Your task to perform on an android device: see sites visited before in the chrome app Image 0: 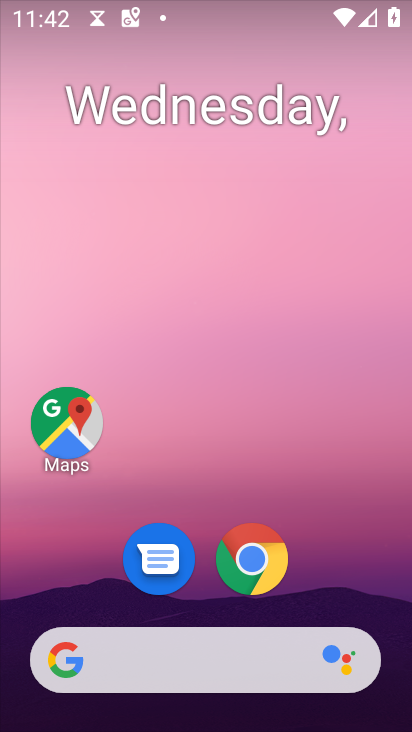
Step 0: click (267, 572)
Your task to perform on an android device: see sites visited before in the chrome app Image 1: 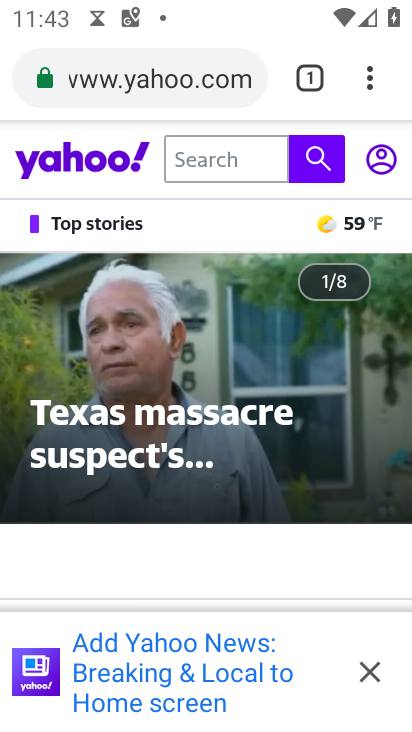
Step 1: click (374, 93)
Your task to perform on an android device: see sites visited before in the chrome app Image 2: 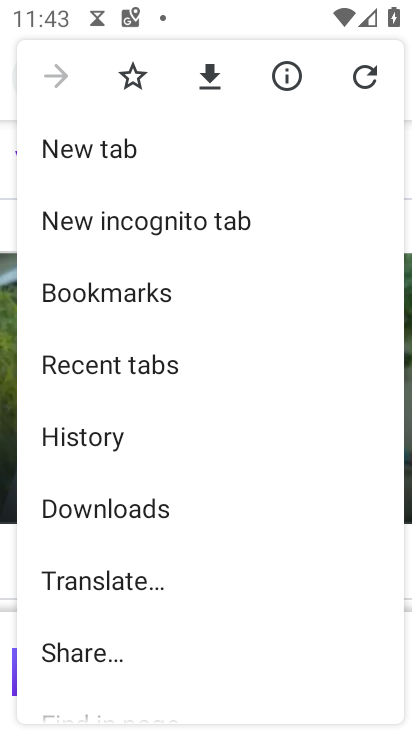
Step 2: click (191, 429)
Your task to perform on an android device: see sites visited before in the chrome app Image 3: 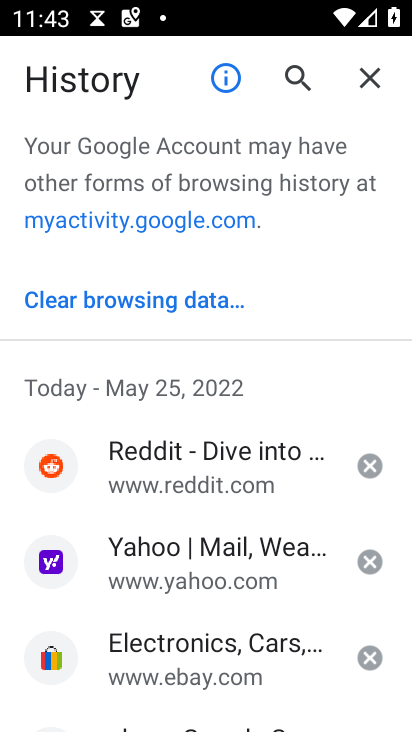
Step 3: task complete